Your task to perform on an android device: allow cookies in the chrome app Image 0: 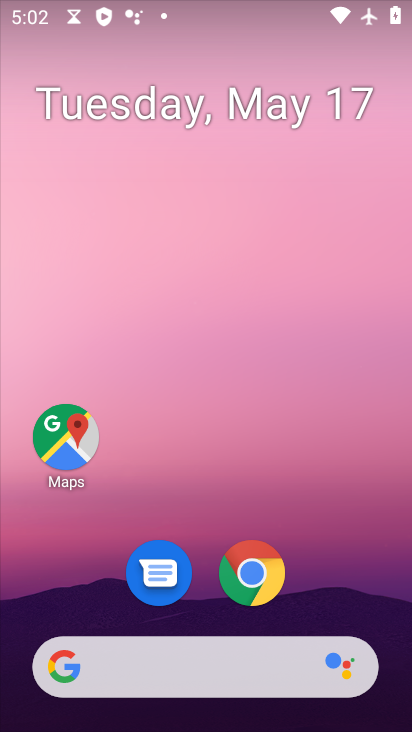
Step 0: drag from (379, 655) to (229, 83)
Your task to perform on an android device: allow cookies in the chrome app Image 1: 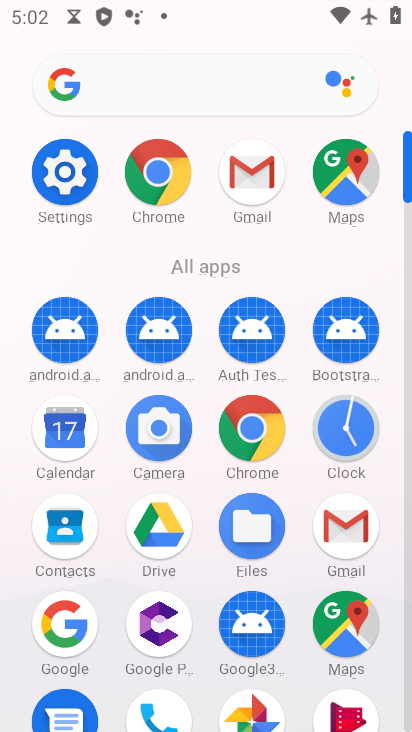
Step 1: click (145, 171)
Your task to perform on an android device: allow cookies in the chrome app Image 2: 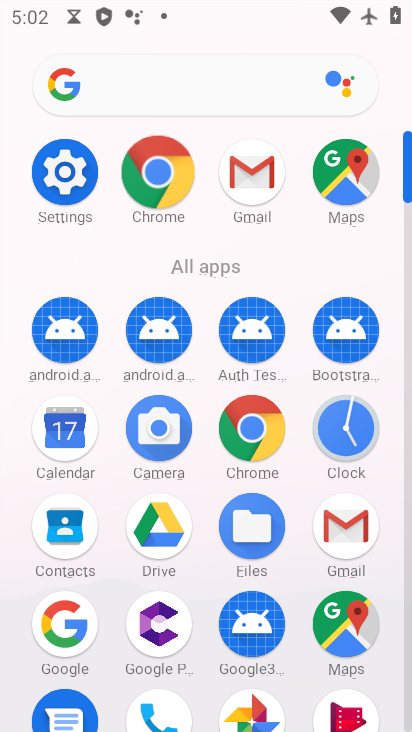
Step 2: click (149, 170)
Your task to perform on an android device: allow cookies in the chrome app Image 3: 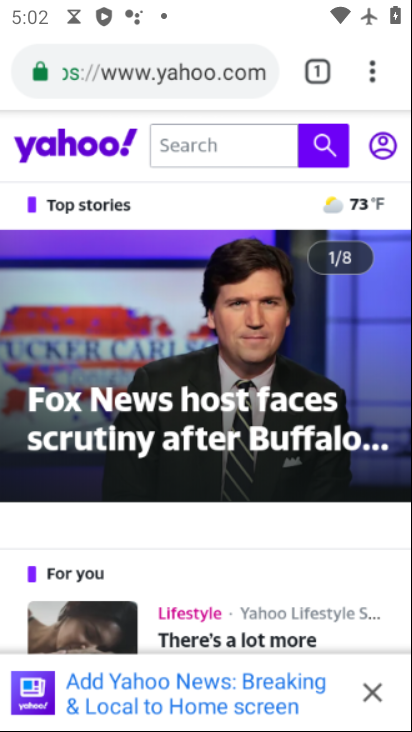
Step 3: click (150, 169)
Your task to perform on an android device: allow cookies in the chrome app Image 4: 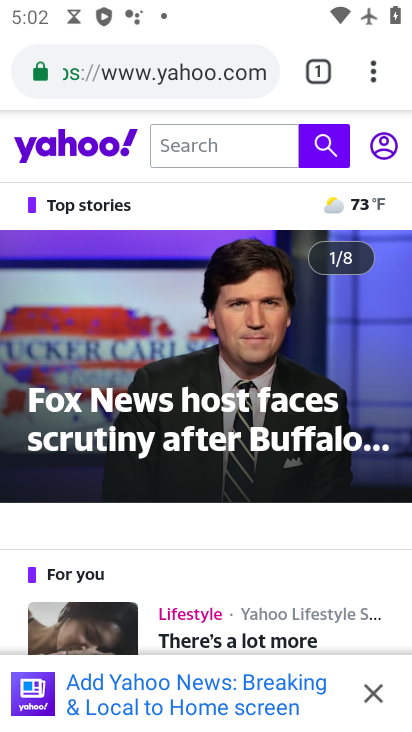
Step 4: click (372, 79)
Your task to perform on an android device: allow cookies in the chrome app Image 5: 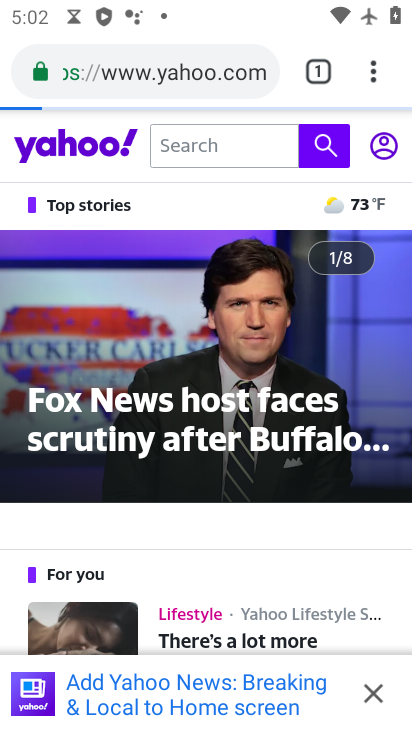
Step 5: click (372, 79)
Your task to perform on an android device: allow cookies in the chrome app Image 6: 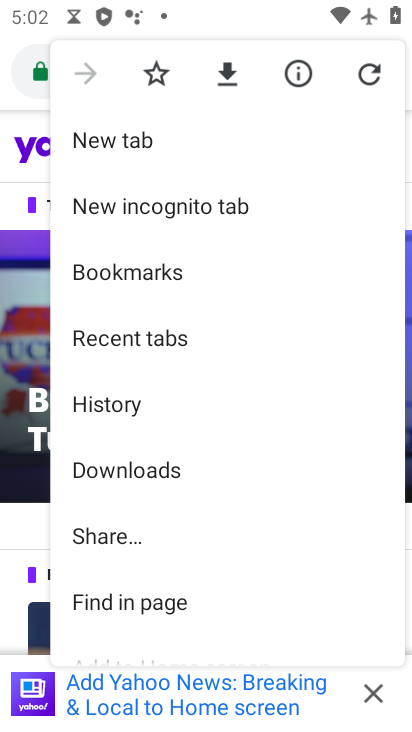
Step 6: drag from (118, 568) to (106, 174)
Your task to perform on an android device: allow cookies in the chrome app Image 7: 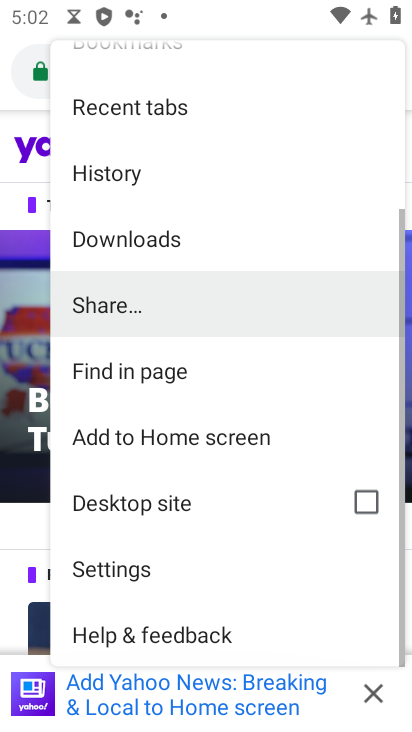
Step 7: click (200, 49)
Your task to perform on an android device: allow cookies in the chrome app Image 8: 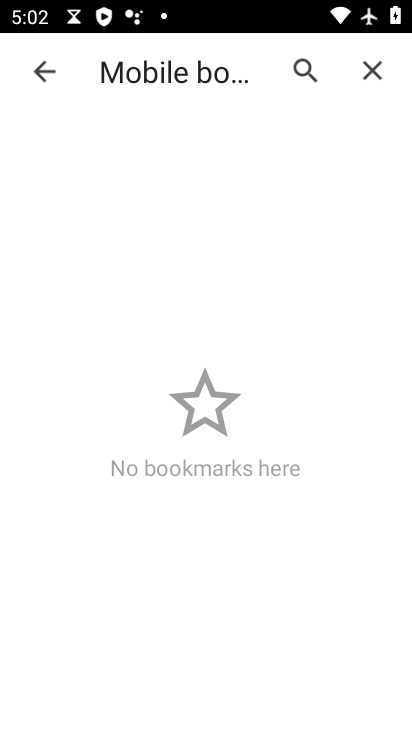
Step 8: click (49, 68)
Your task to perform on an android device: allow cookies in the chrome app Image 9: 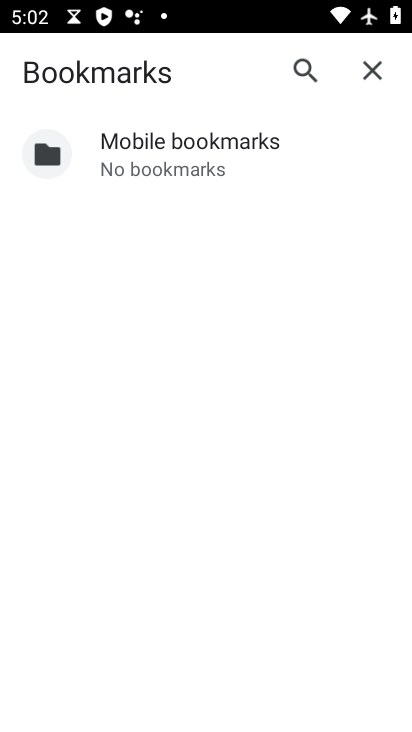
Step 9: click (368, 76)
Your task to perform on an android device: allow cookies in the chrome app Image 10: 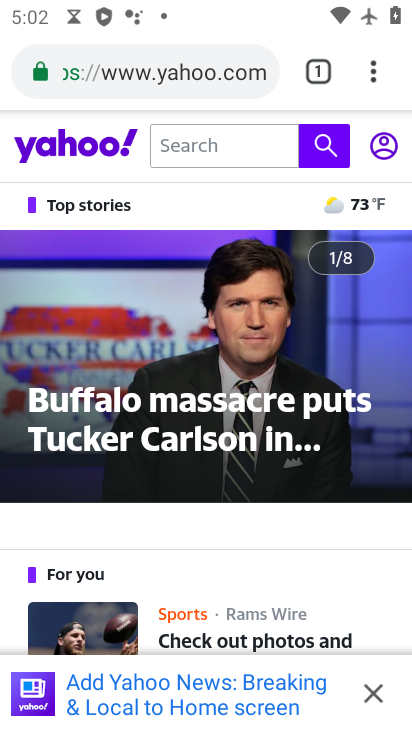
Step 10: click (365, 75)
Your task to perform on an android device: allow cookies in the chrome app Image 11: 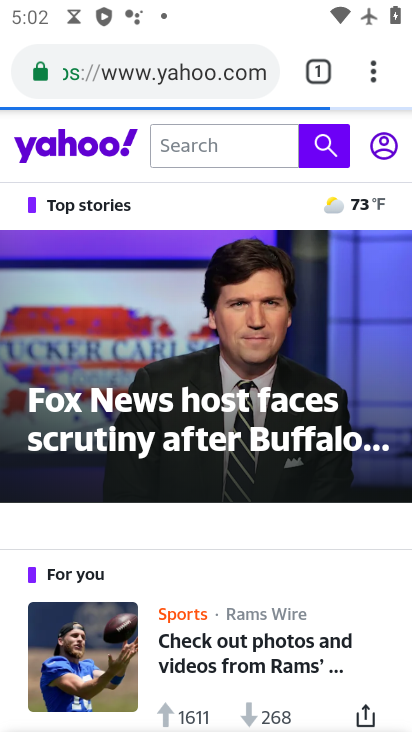
Step 11: drag from (372, 78) to (112, 574)
Your task to perform on an android device: allow cookies in the chrome app Image 12: 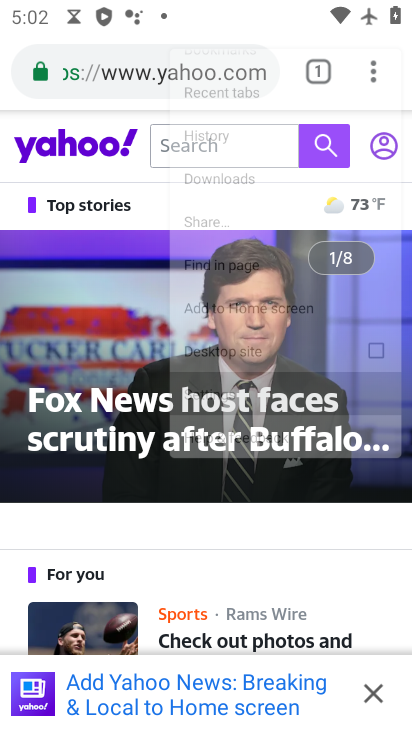
Step 12: click (115, 574)
Your task to perform on an android device: allow cookies in the chrome app Image 13: 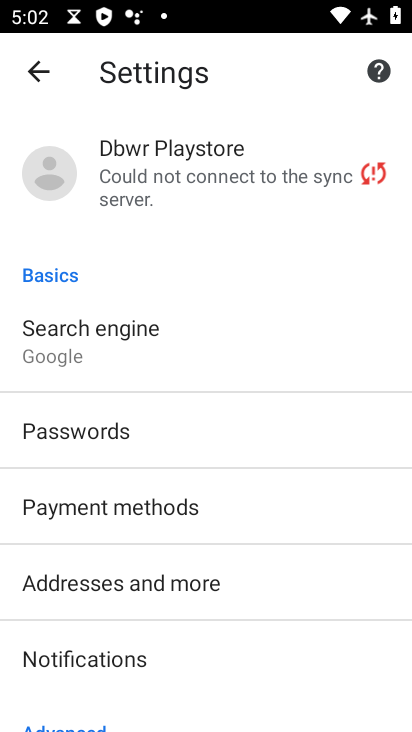
Step 13: drag from (128, 570) to (102, 198)
Your task to perform on an android device: allow cookies in the chrome app Image 14: 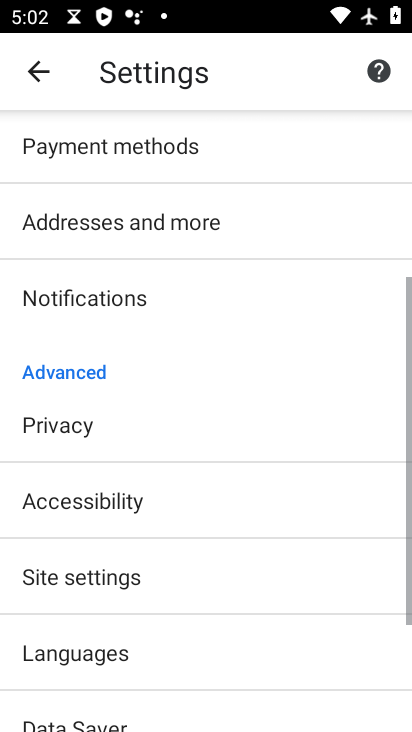
Step 14: drag from (119, 431) to (126, 147)
Your task to perform on an android device: allow cookies in the chrome app Image 15: 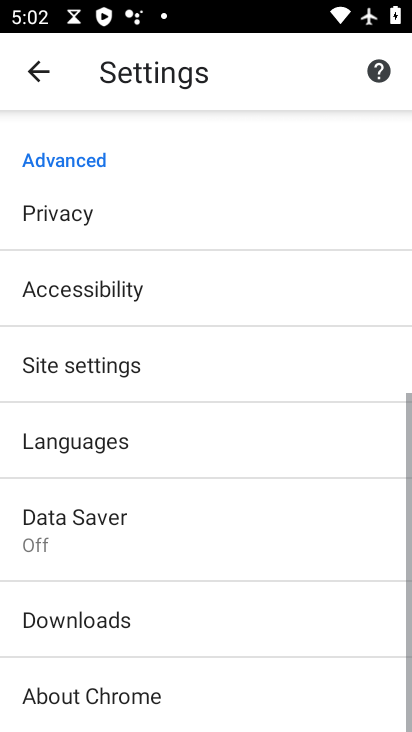
Step 15: drag from (116, 513) to (68, 243)
Your task to perform on an android device: allow cookies in the chrome app Image 16: 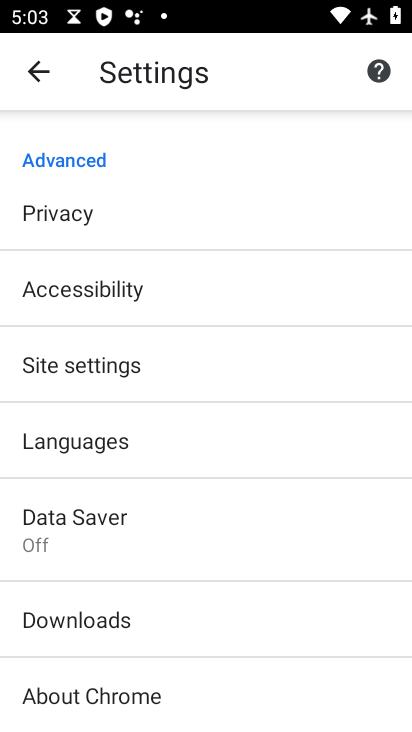
Step 16: click (59, 368)
Your task to perform on an android device: allow cookies in the chrome app Image 17: 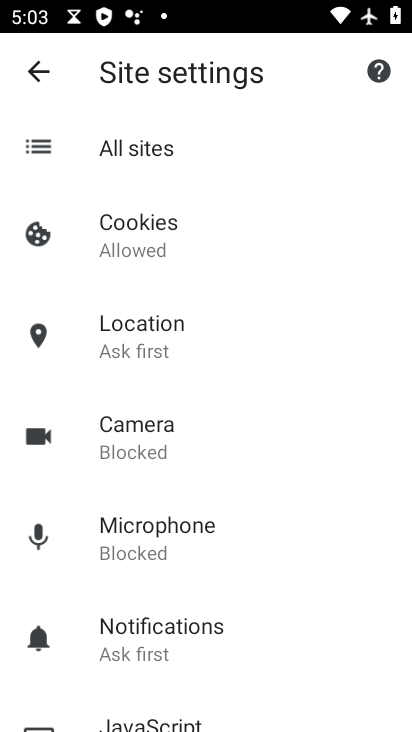
Step 17: click (141, 219)
Your task to perform on an android device: allow cookies in the chrome app Image 18: 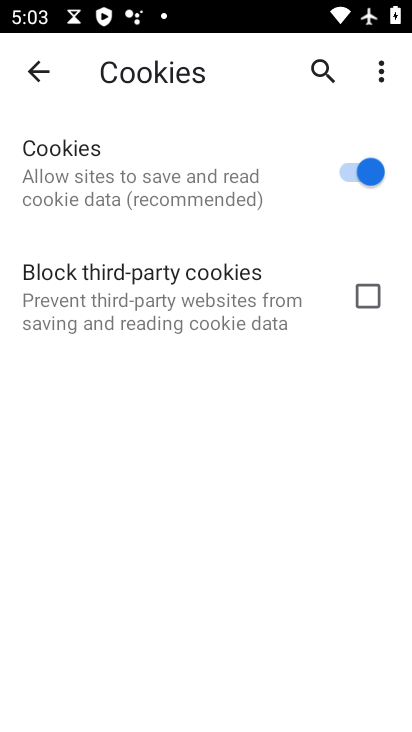
Step 18: task complete